Your task to perform on an android device: turn on sleep mode Image 0: 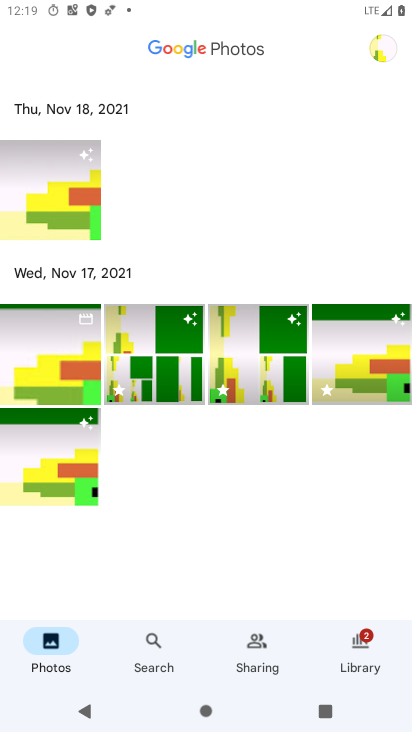
Step 0: press home button
Your task to perform on an android device: turn on sleep mode Image 1: 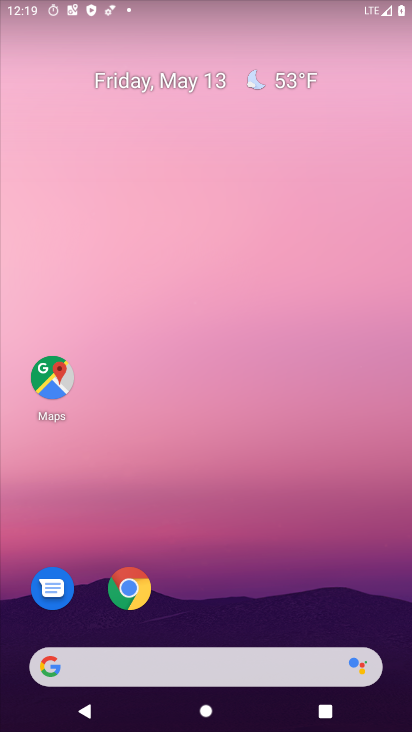
Step 1: drag from (261, 548) to (256, 193)
Your task to perform on an android device: turn on sleep mode Image 2: 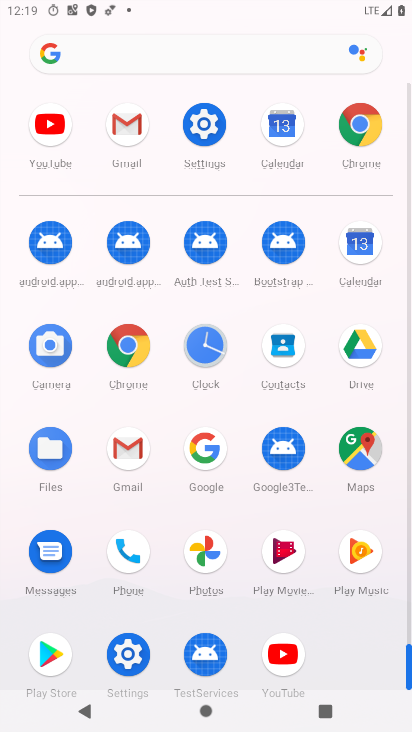
Step 2: click (201, 117)
Your task to perform on an android device: turn on sleep mode Image 3: 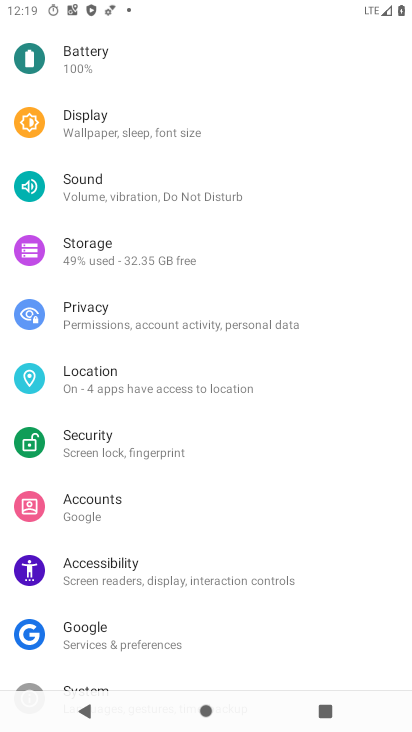
Step 3: click (160, 126)
Your task to perform on an android device: turn on sleep mode Image 4: 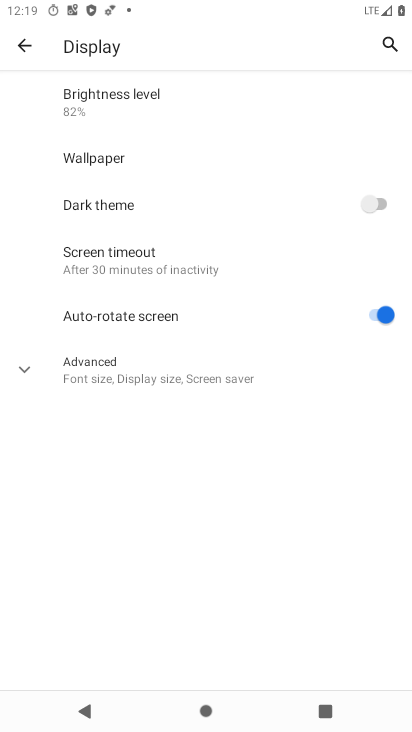
Step 4: click (98, 265)
Your task to perform on an android device: turn on sleep mode Image 5: 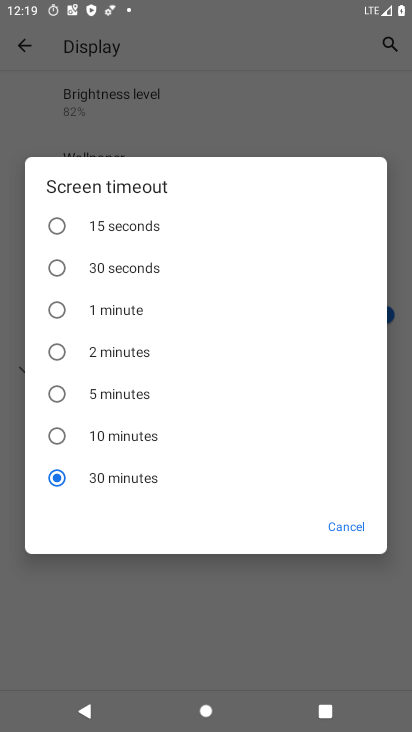
Step 5: task complete